Your task to perform on an android device: toggle notification dots Image 0: 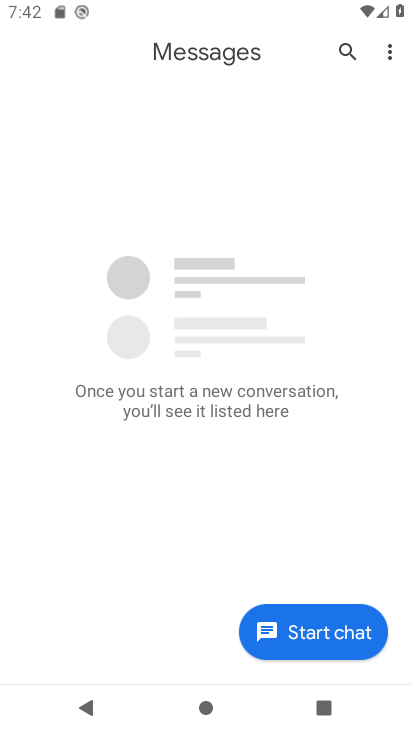
Step 0: press home button
Your task to perform on an android device: toggle notification dots Image 1: 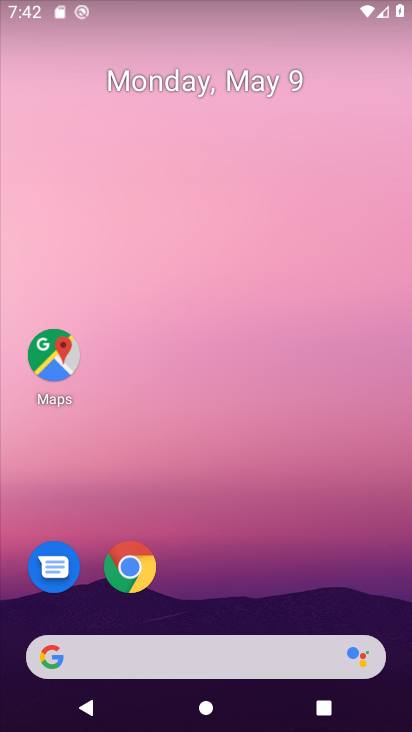
Step 1: drag from (249, 612) to (270, 36)
Your task to perform on an android device: toggle notification dots Image 2: 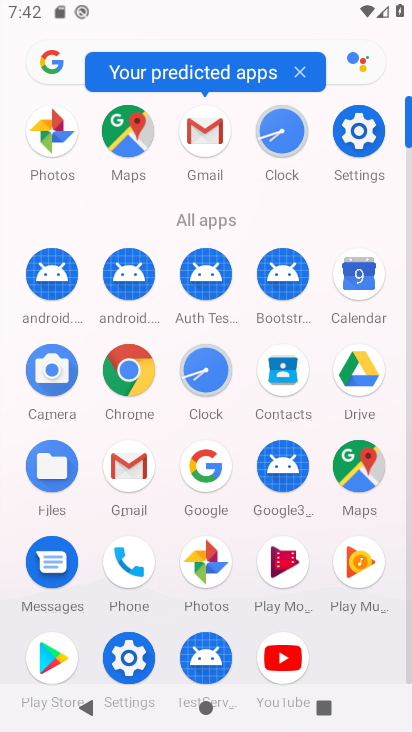
Step 2: click (360, 142)
Your task to perform on an android device: toggle notification dots Image 3: 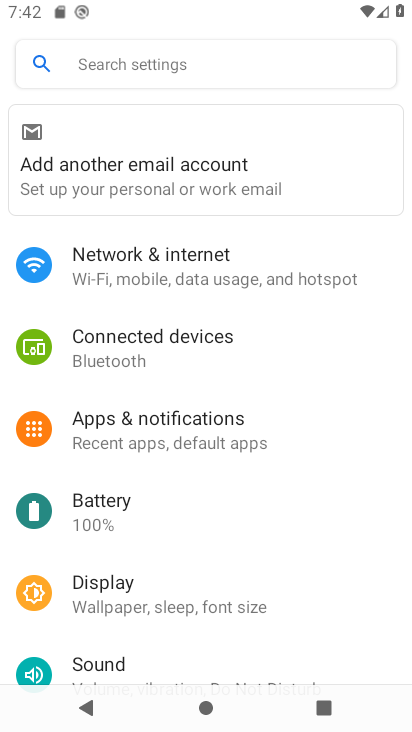
Step 3: drag from (189, 575) to (173, 495)
Your task to perform on an android device: toggle notification dots Image 4: 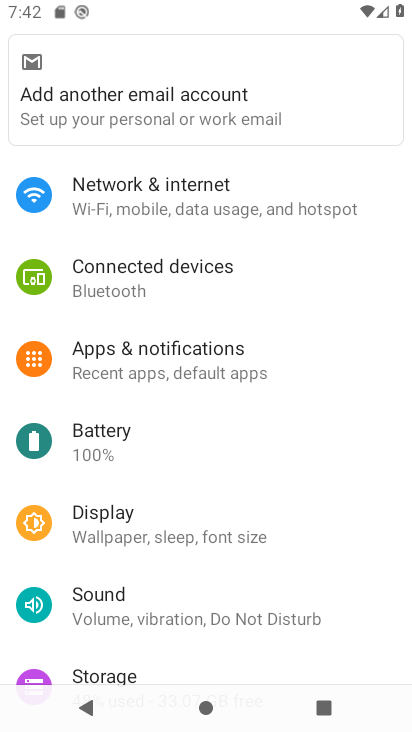
Step 4: click (172, 367)
Your task to perform on an android device: toggle notification dots Image 5: 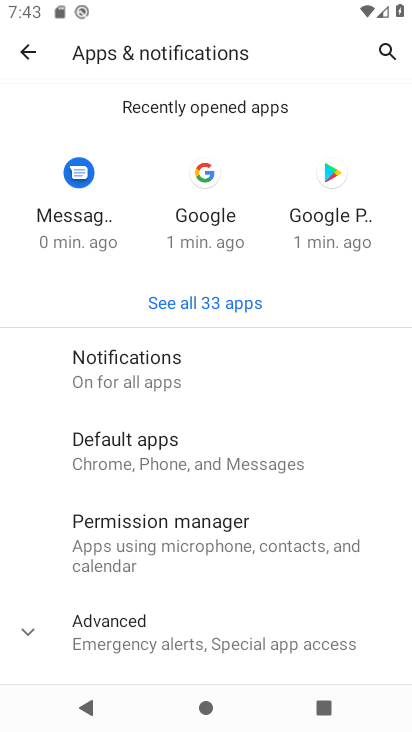
Step 5: click (263, 352)
Your task to perform on an android device: toggle notification dots Image 6: 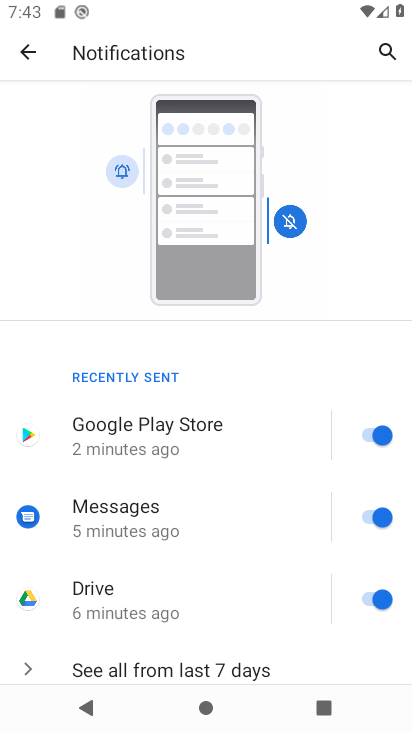
Step 6: drag from (136, 639) to (78, 201)
Your task to perform on an android device: toggle notification dots Image 7: 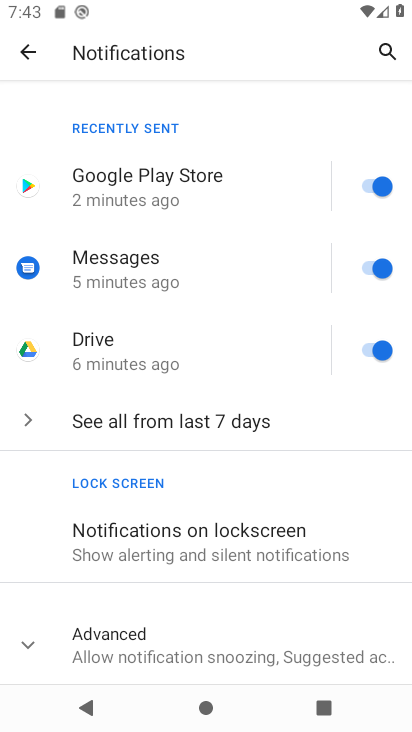
Step 7: click (149, 651)
Your task to perform on an android device: toggle notification dots Image 8: 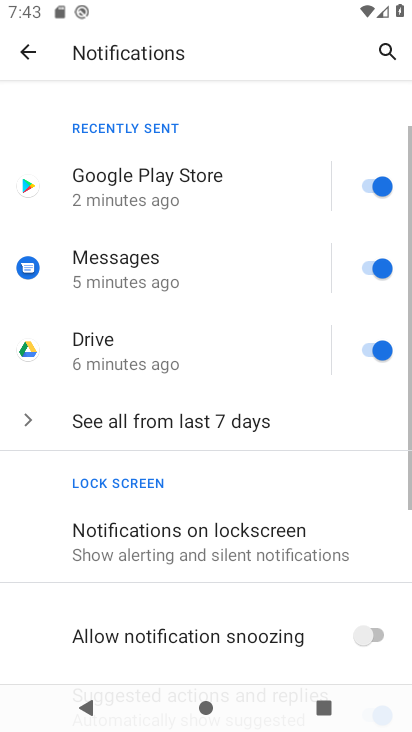
Step 8: drag from (159, 642) to (149, 267)
Your task to perform on an android device: toggle notification dots Image 9: 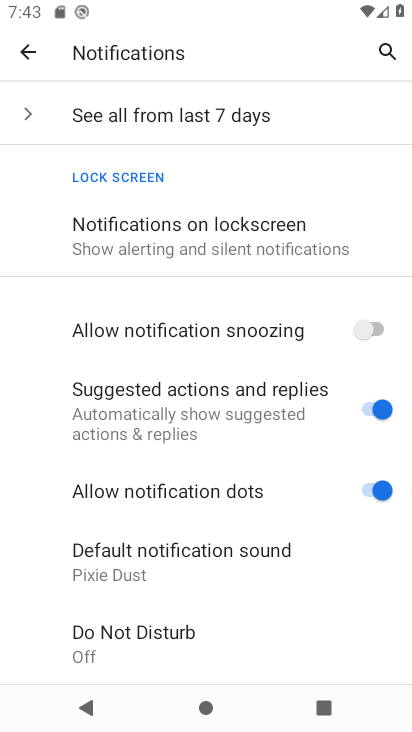
Step 9: click (366, 491)
Your task to perform on an android device: toggle notification dots Image 10: 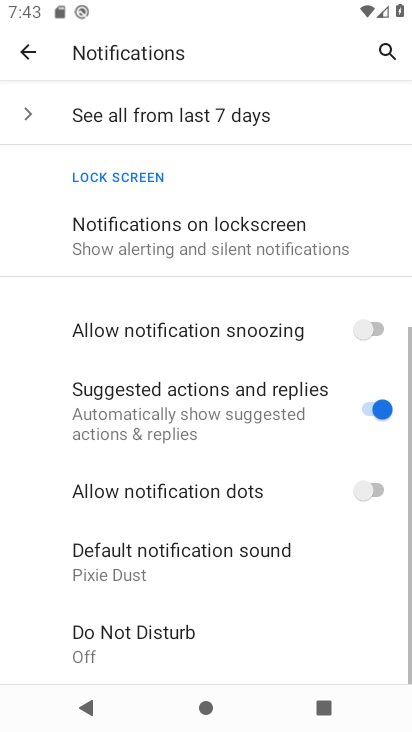
Step 10: task complete